Your task to perform on an android device: open the mobile data screen to see how much data has been used Image 0: 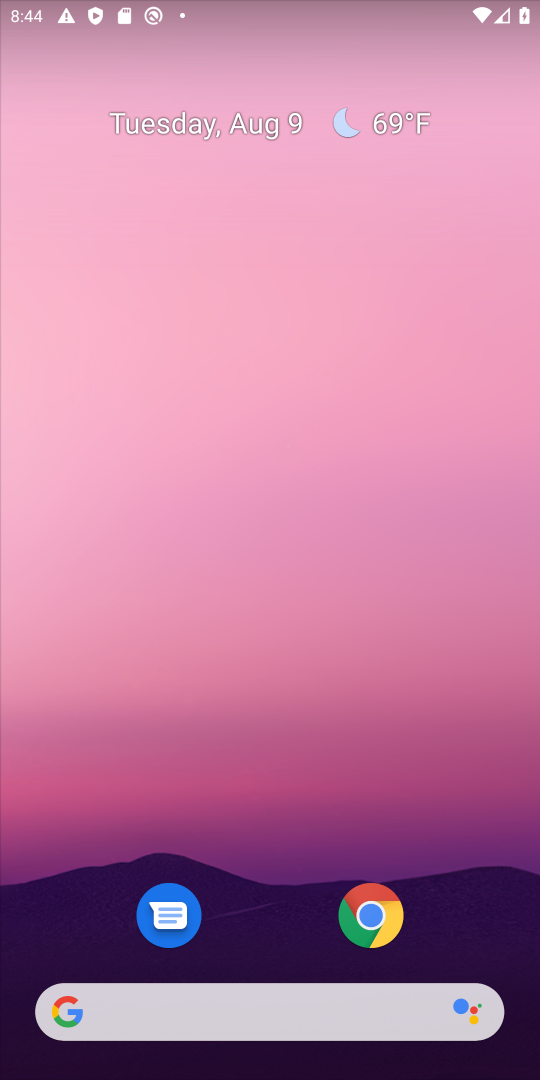
Step 0: drag from (227, 6) to (171, 790)
Your task to perform on an android device: open the mobile data screen to see how much data has been used Image 1: 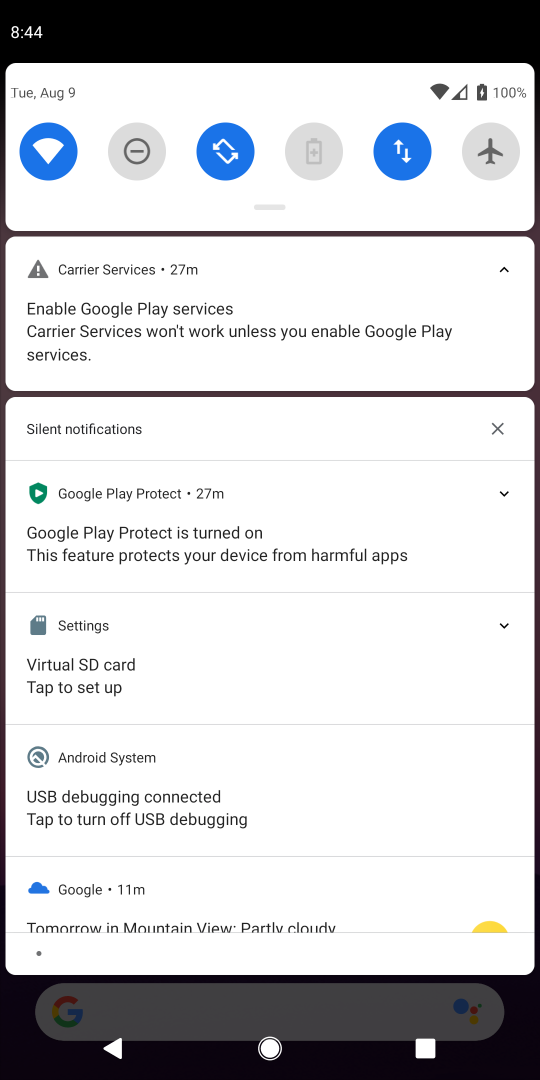
Step 1: click (395, 149)
Your task to perform on an android device: open the mobile data screen to see how much data has been used Image 2: 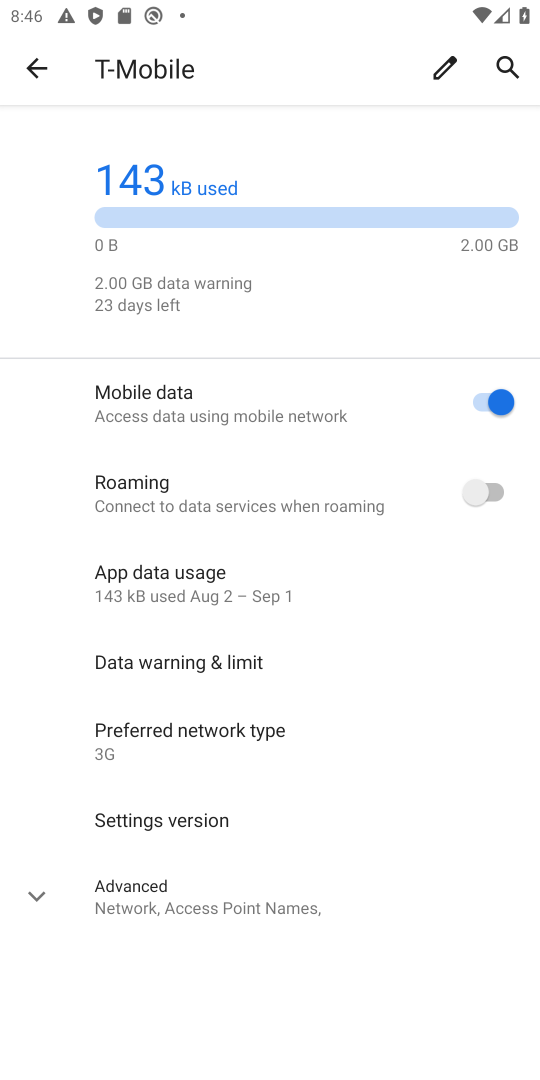
Step 2: task complete